Your task to perform on an android device: choose inbox layout in the gmail app Image 0: 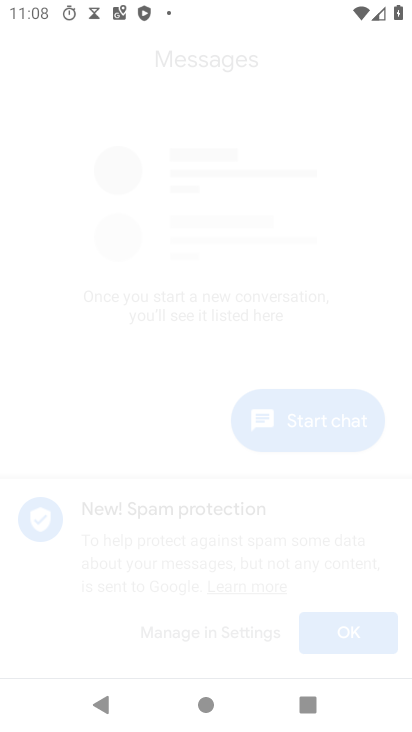
Step 0: drag from (217, 570) to (243, 177)
Your task to perform on an android device: choose inbox layout in the gmail app Image 1: 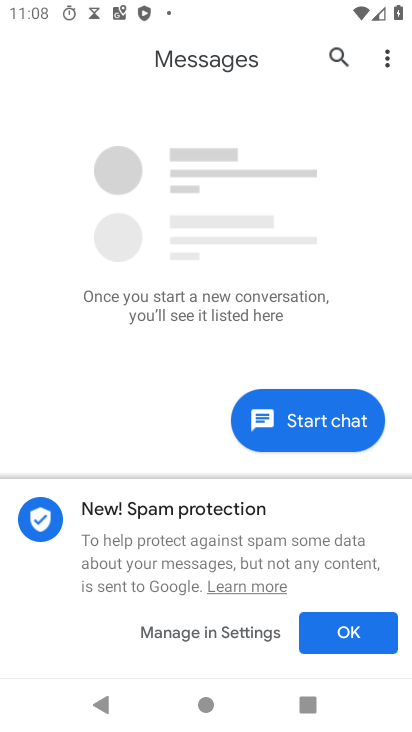
Step 1: press home button
Your task to perform on an android device: choose inbox layout in the gmail app Image 2: 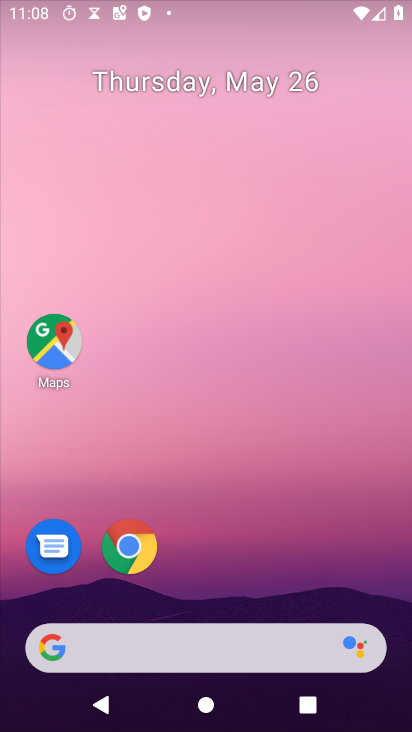
Step 2: drag from (361, 427) to (351, 166)
Your task to perform on an android device: choose inbox layout in the gmail app Image 3: 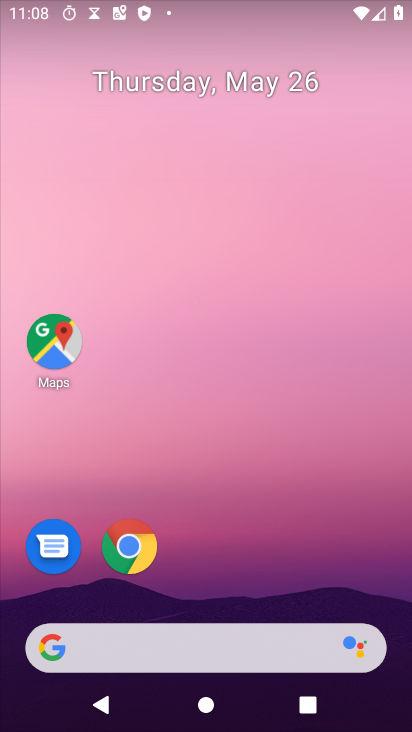
Step 3: drag from (353, 584) to (305, 168)
Your task to perform on an android device: choose inbox layout in the gmail app Image 4: 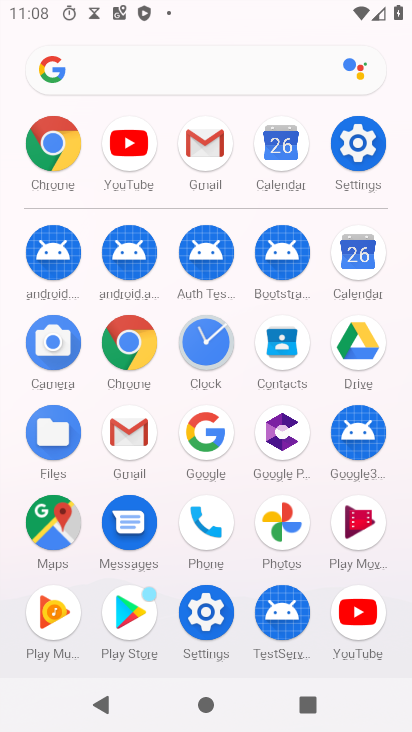
Step 4: click (138, 446)
Your task to perform on an android device: choose inbox layout in the gmail app Image 5: 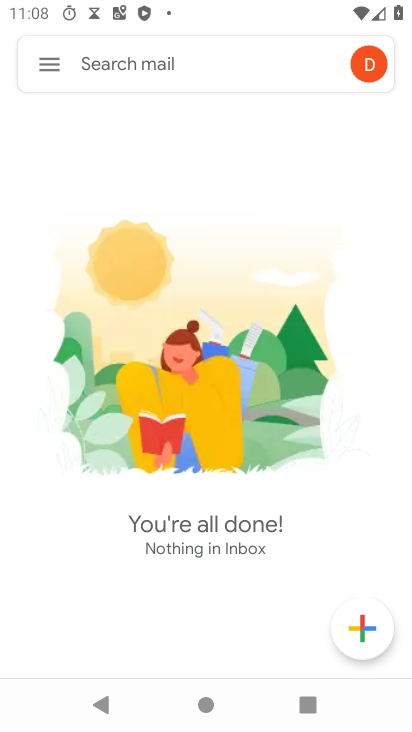
Step 5: click (49, 61)
Your task to perform on an android device: choose inbox layout in the gmail app Image 6: 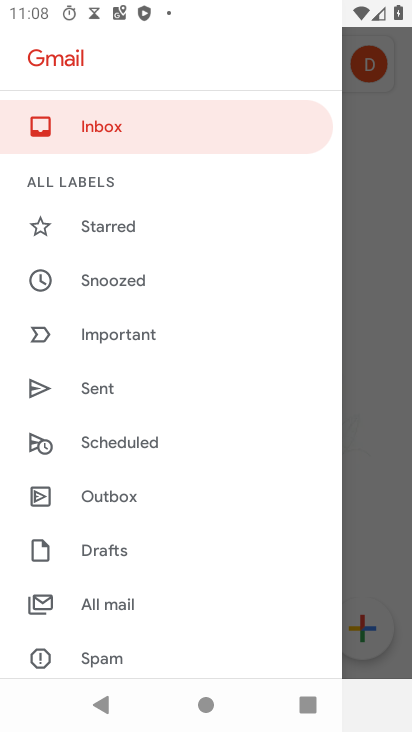
Step 6: drag from (187, 648) to (211, 307)
Your task to perform on an android device: choose inbox layout in the gmail app Image 7: 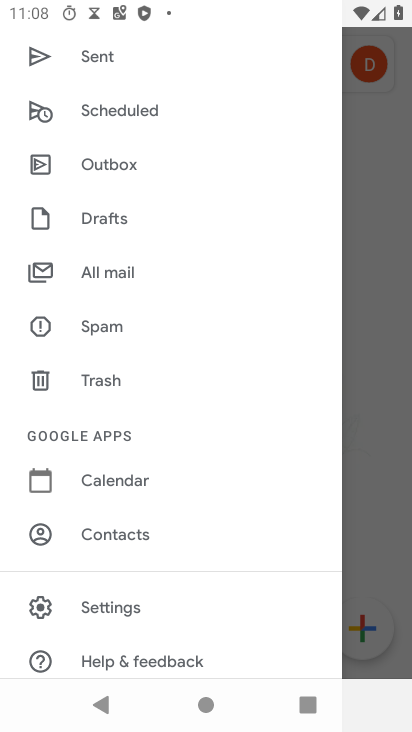
Step 7: click (159, 620)
Your task to perform on an android device: choose inbox layout in the gmail app Image 8: 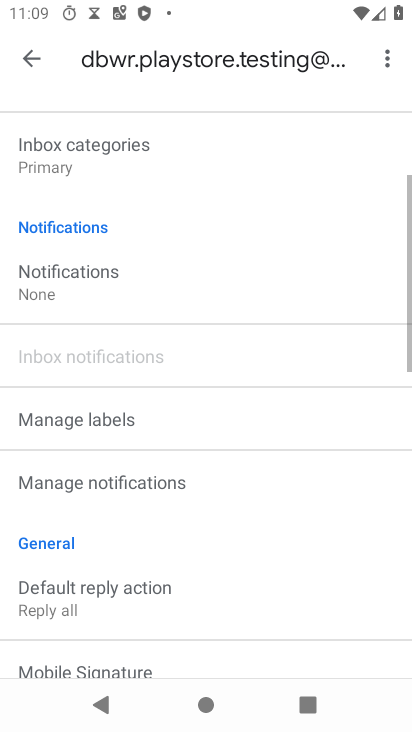
Step 8: click (173, 252)
Your task to perform on an android device: choose inbox layout in the gmail app Image 9: 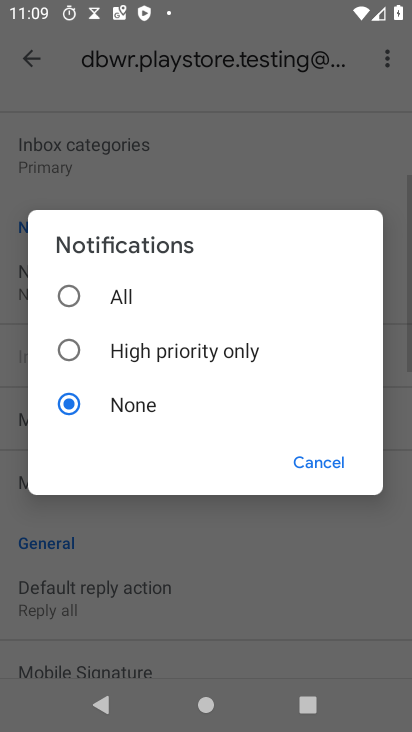
Step 9: click (182, 154)
Your task to perform on an android device: choose inbox layout in the gmail app Image 10: 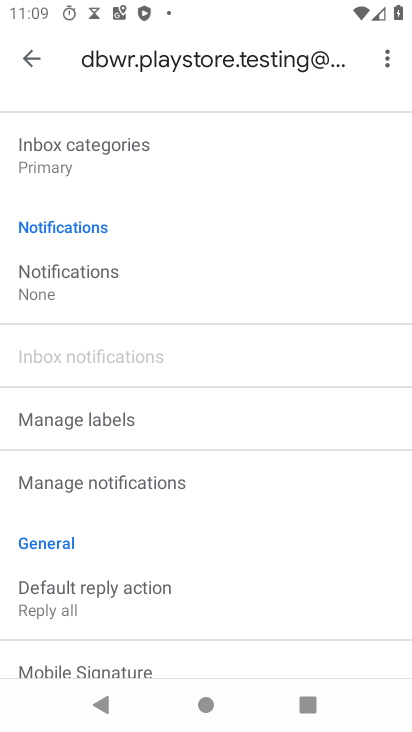
Step 10: drag from (176, 161) to (180, 558)
Your task to perform on an android device: choose inbox layout in the gmail app Image 11: 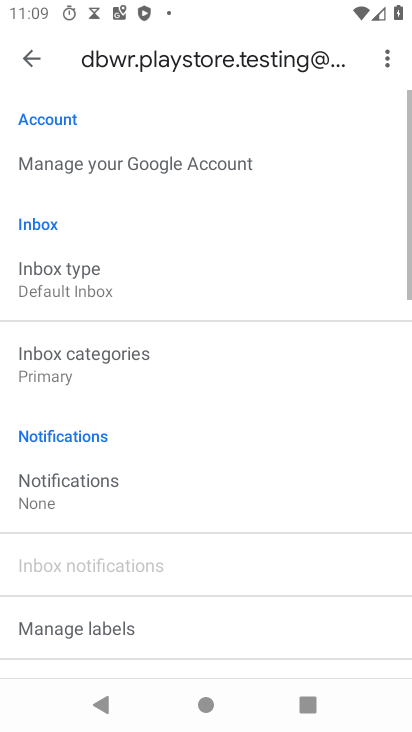
Step 11: click (158, 301)
Your task to perform on an android device: choose inbox layout in the gmail app Image 12: 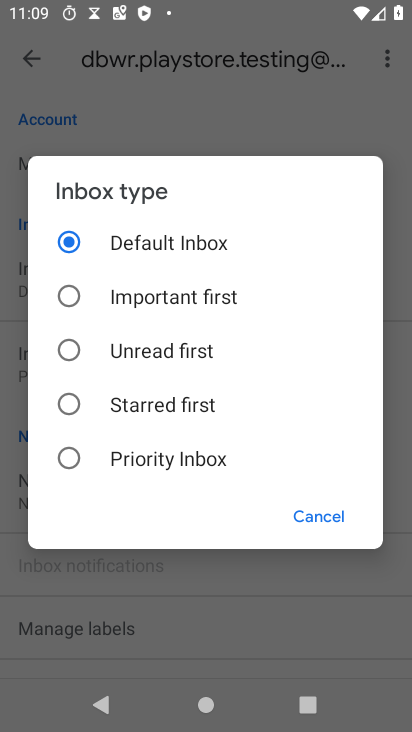
Step 12: click (77, 453)
Your task to perform on an android device: choose inbox layout in the gmail app Image 13: 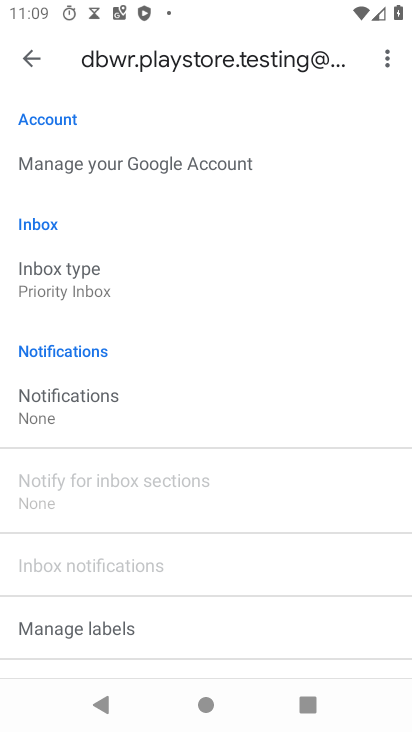
Step 13: task complete